Your task to perform on an android device: change alarm snooze length Image 0: 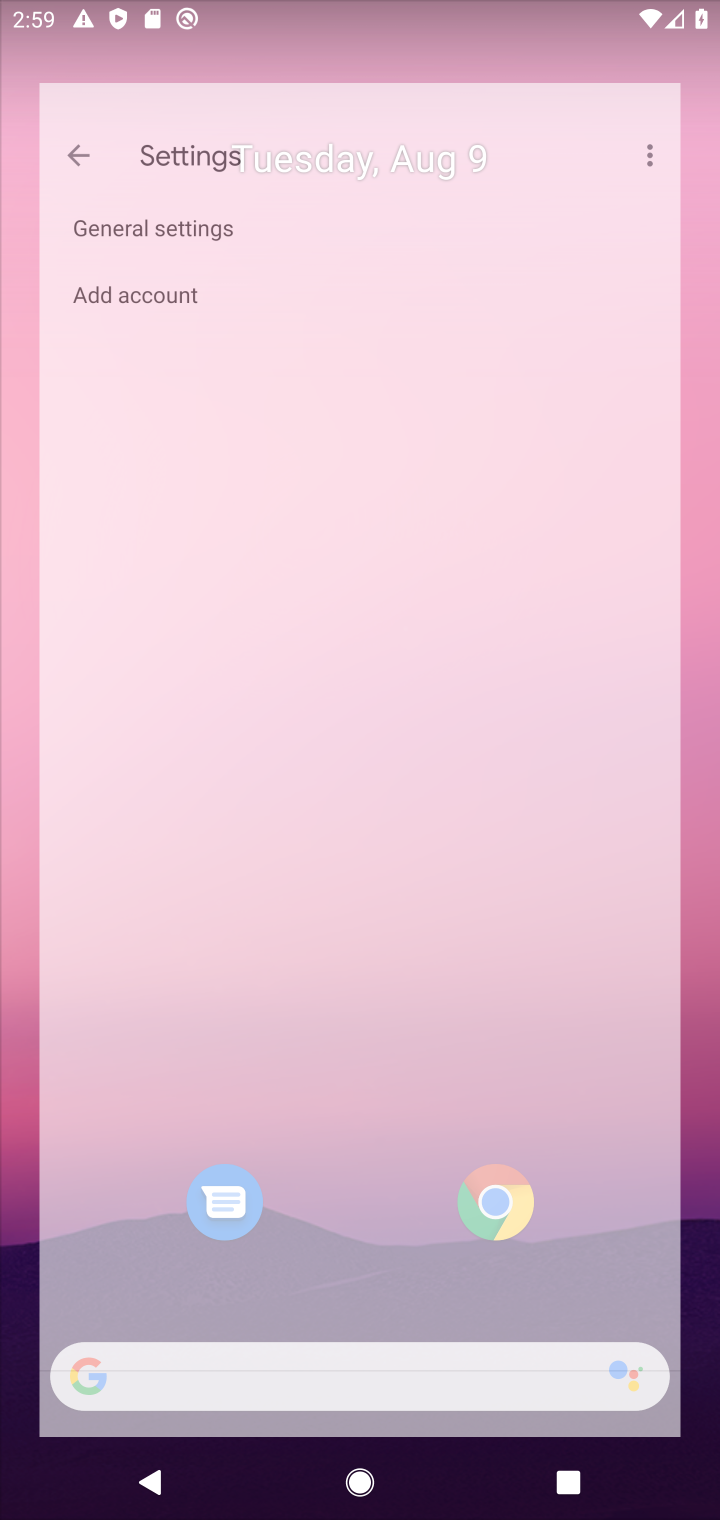
Step 0: press home button
Your task to perform on an android device: change alarm snooze length Image 1: 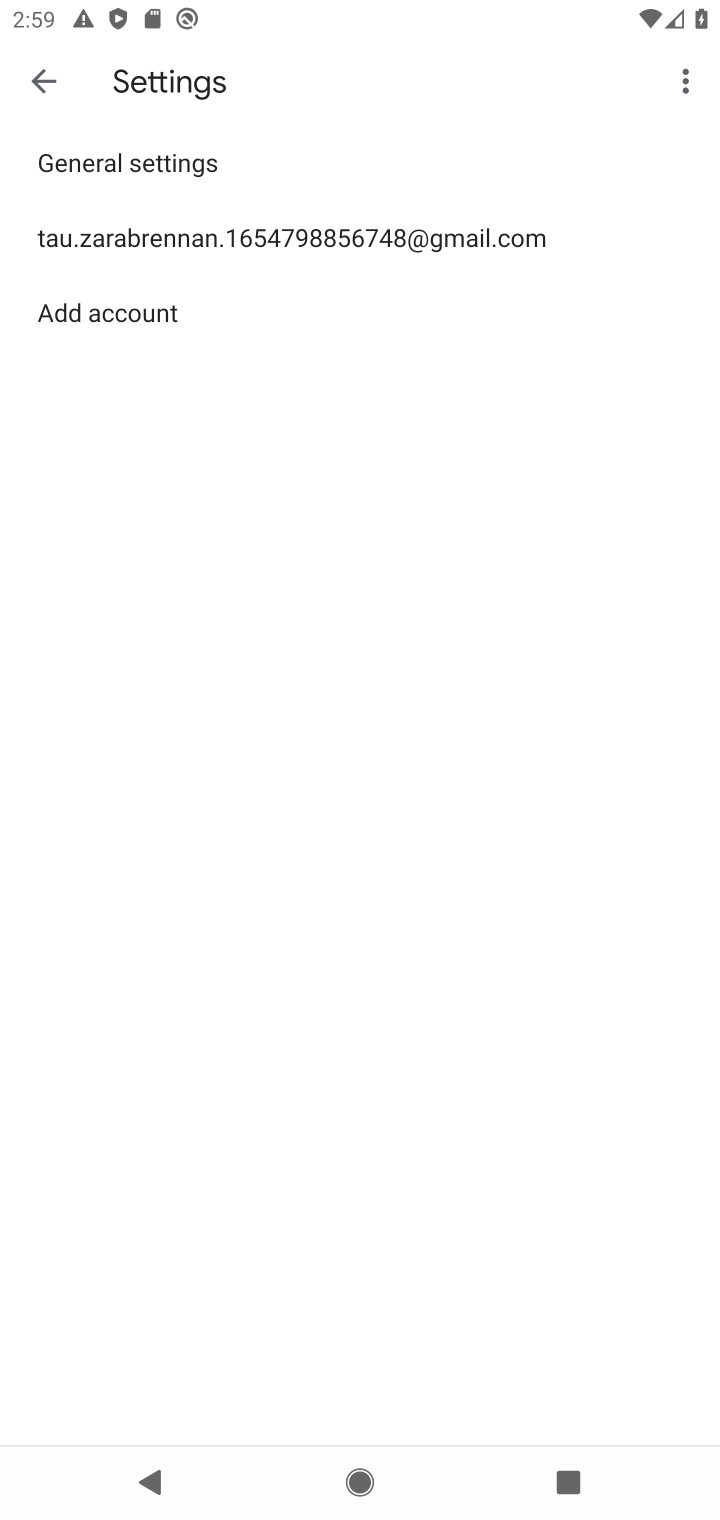
Step 1: press home button
Your task to perform on an android device: change alarm snooze length Image 2: 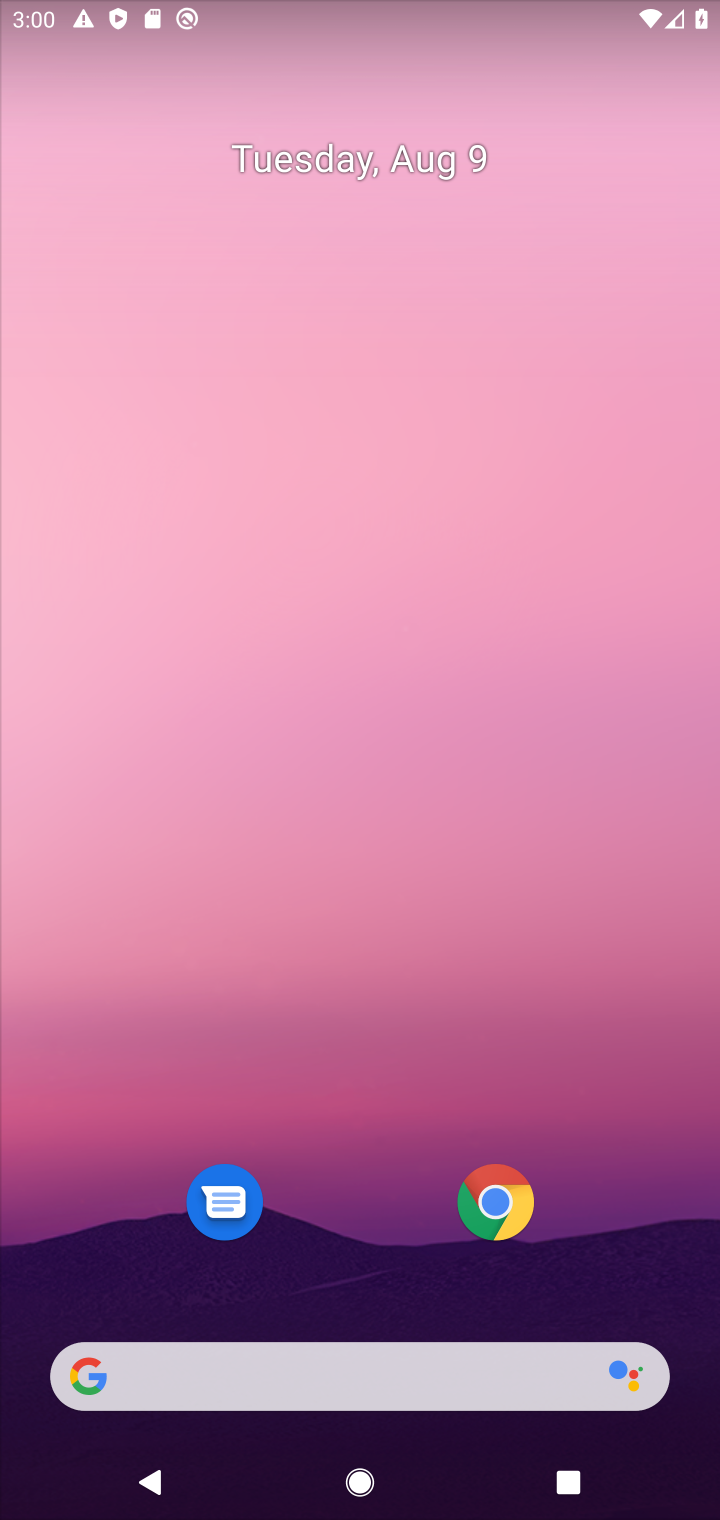
Step 2: drag from (338, 751) to (338, 578)
Your task to perform on an android device: change alarm snooze length Image 3: 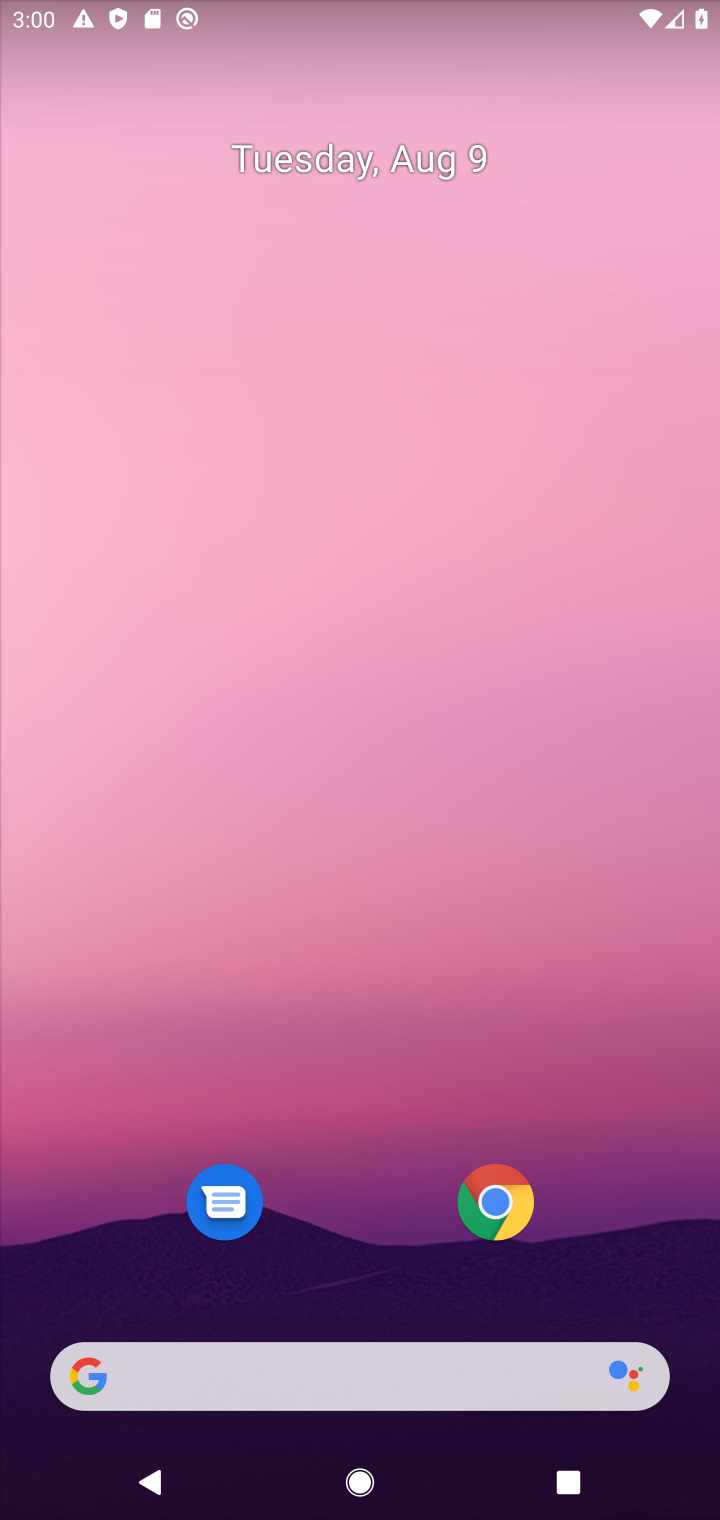
Step 3: drag from (635, 1155) to (324, 73)
Your task to perform on an android device: change alarm snooze length Image 4: 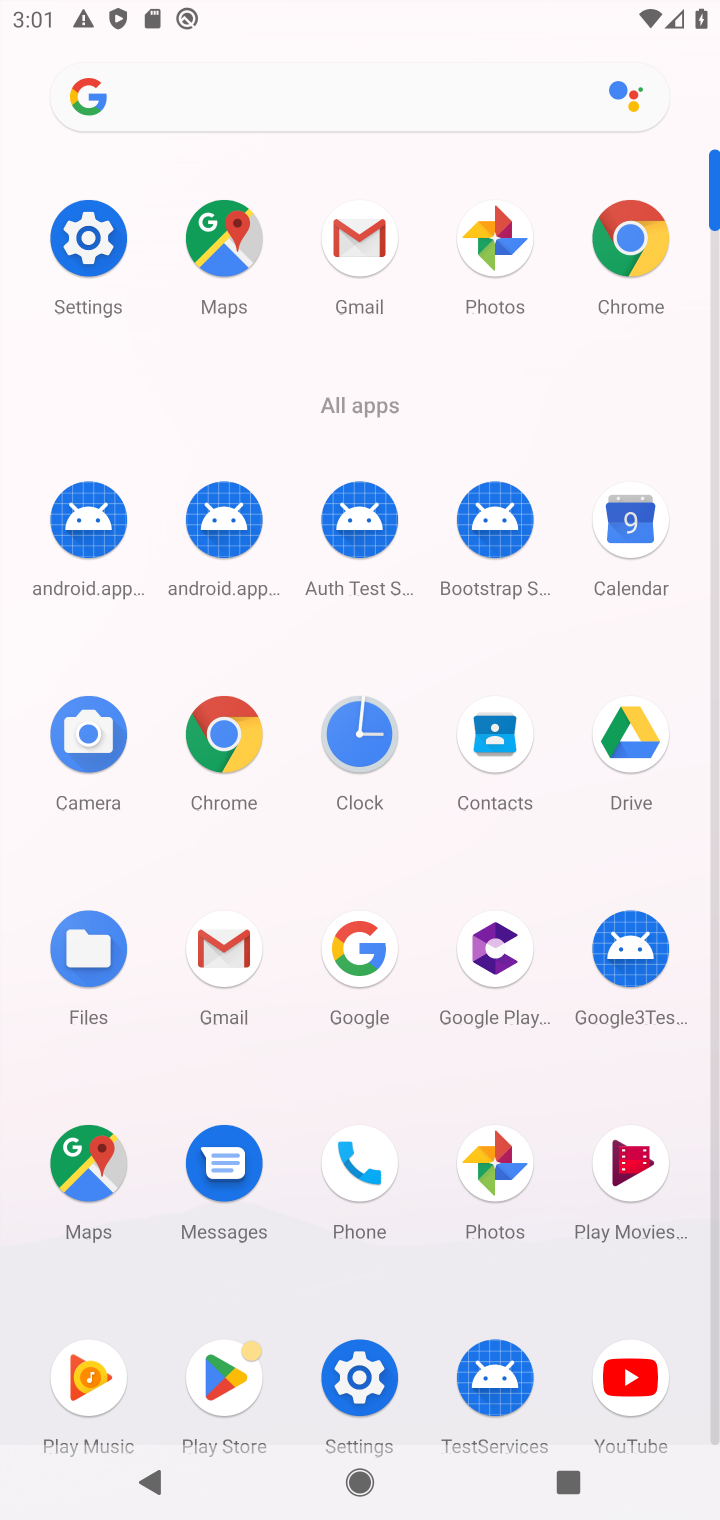
Step 4: click (352, 734)
Your task to perform on an android device: change alarm snooze length Image 5: 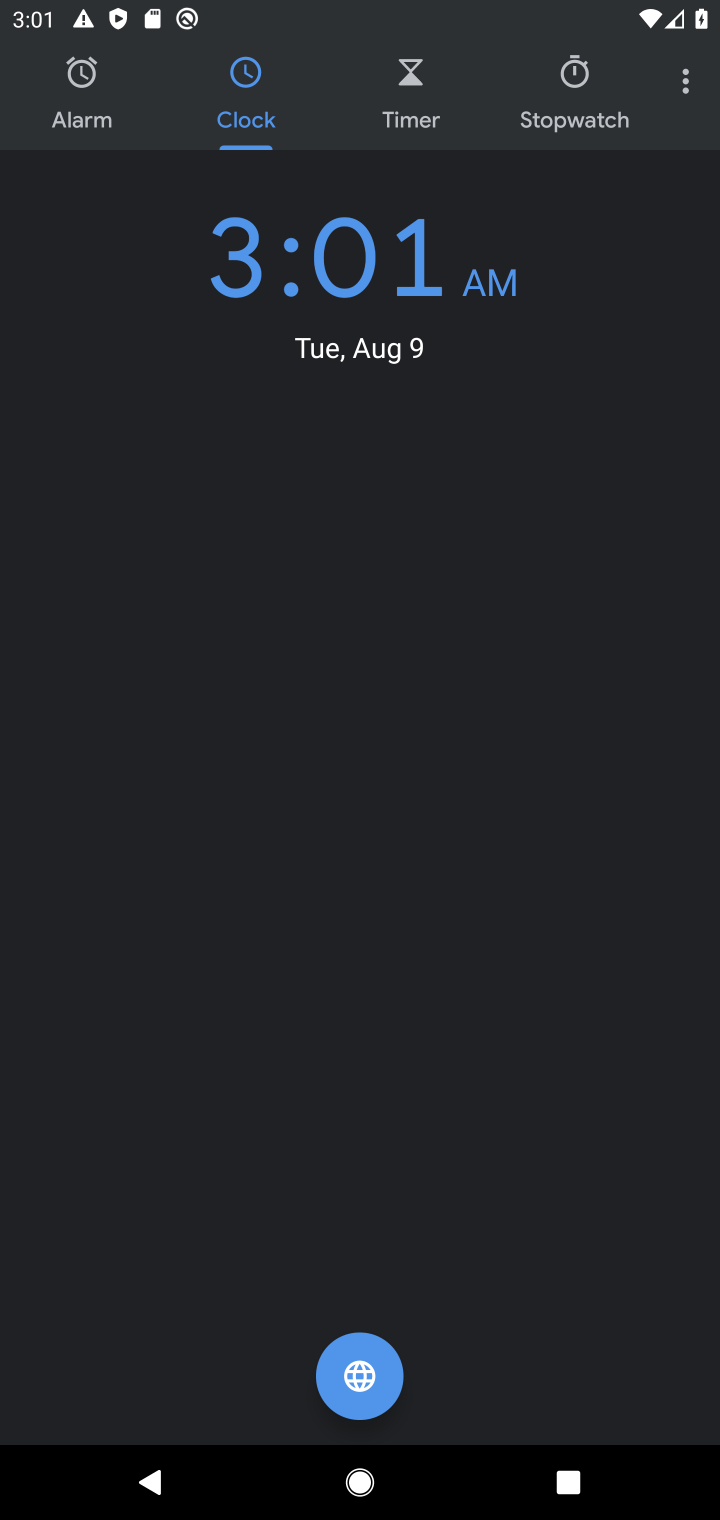
Step 5: click (680, 104)
Your task to perform on an android device: change alarm snooze length Image 6: 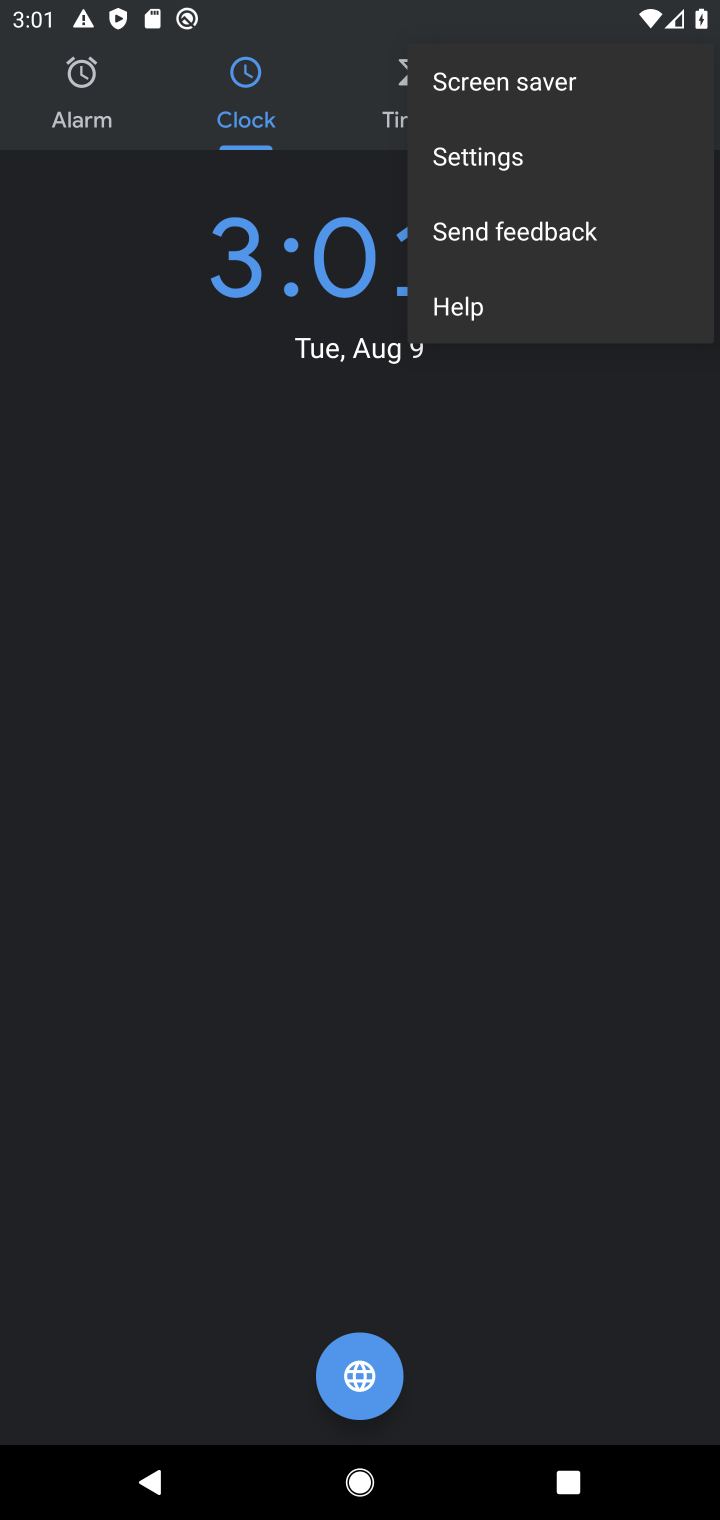
Step 6: click (464, 160)
Your task to perform on an android device: change alarm snooze length Image 7: 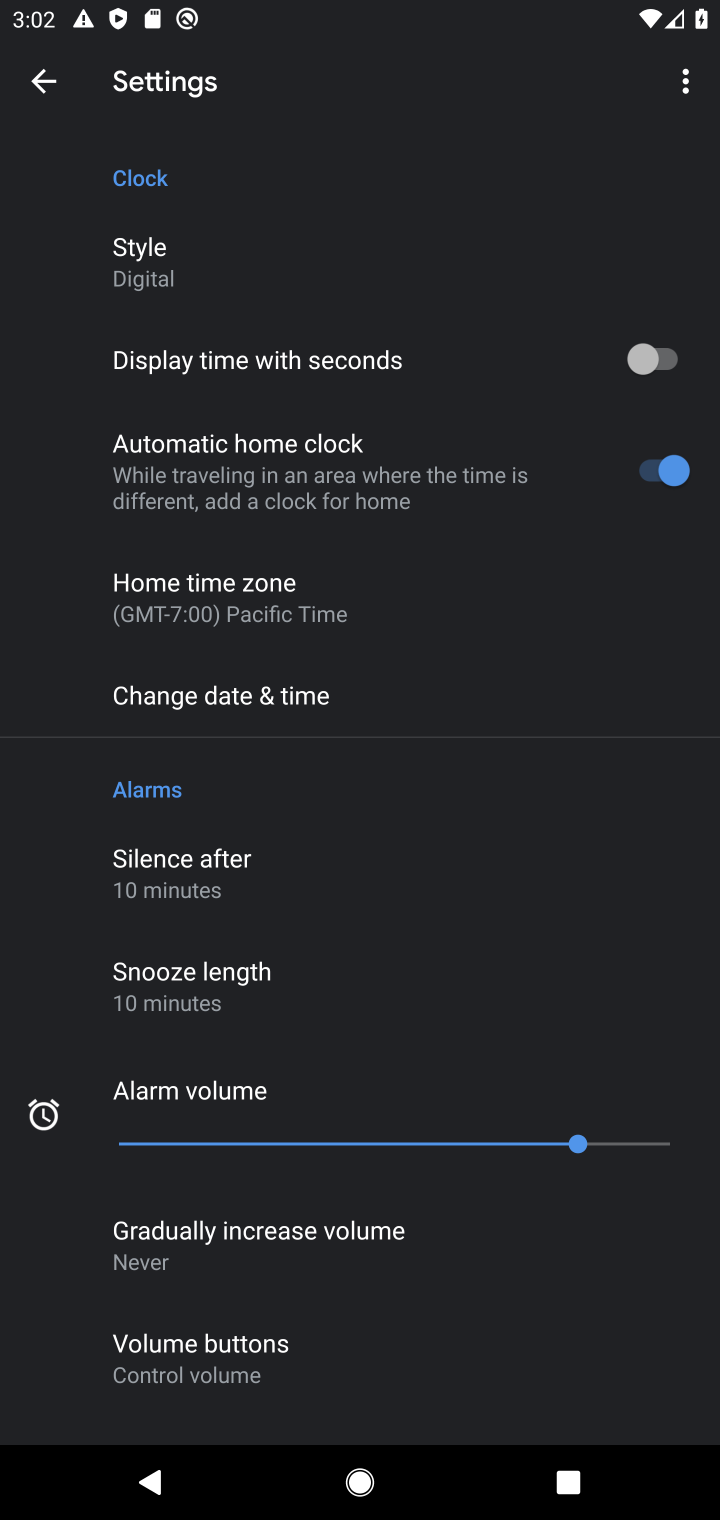
Step 7: drag from (270, 1282) to (246, 1134)
Your task to perform on an android device: change alarm snooze length Image 8: 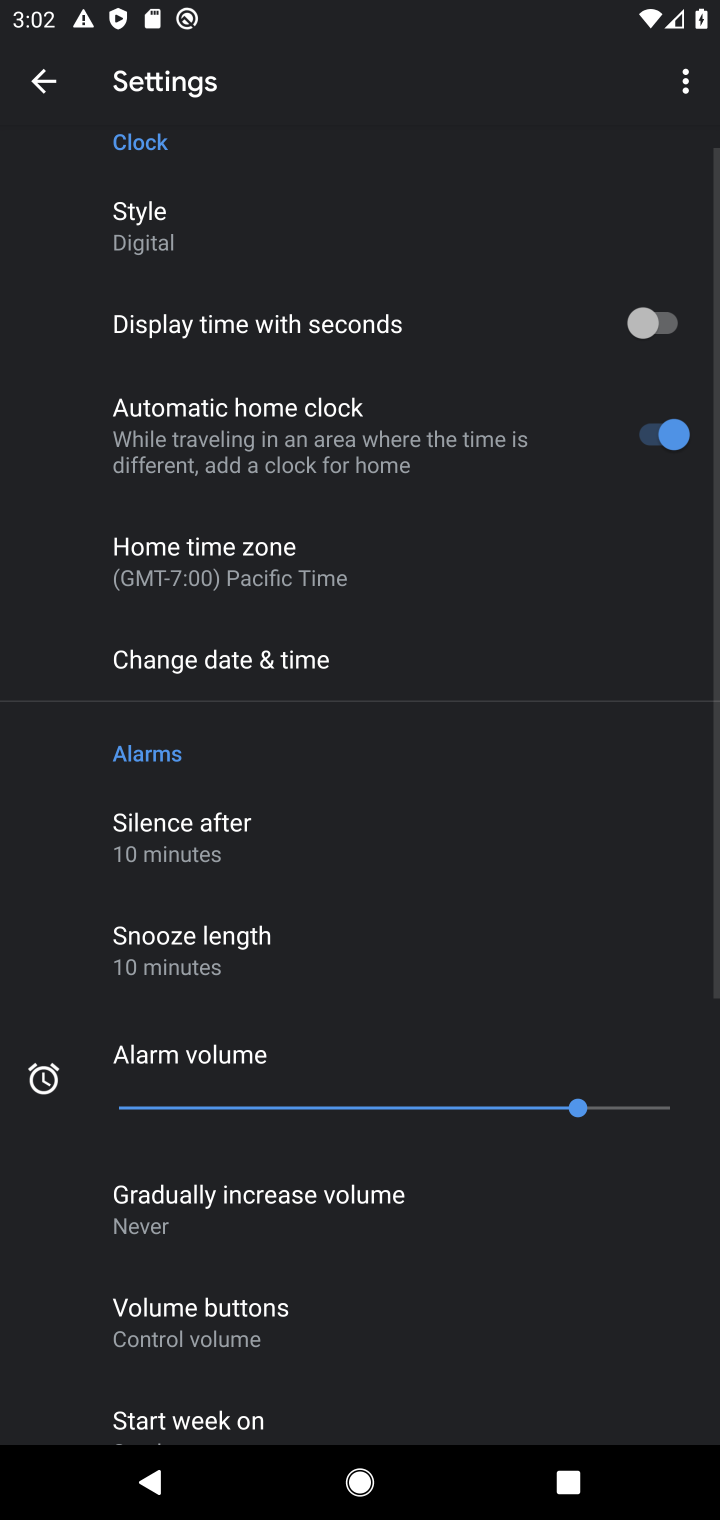
Step 8: click (256, 951)
Your task to perform on an android device: change alarm snooze length Image 9: 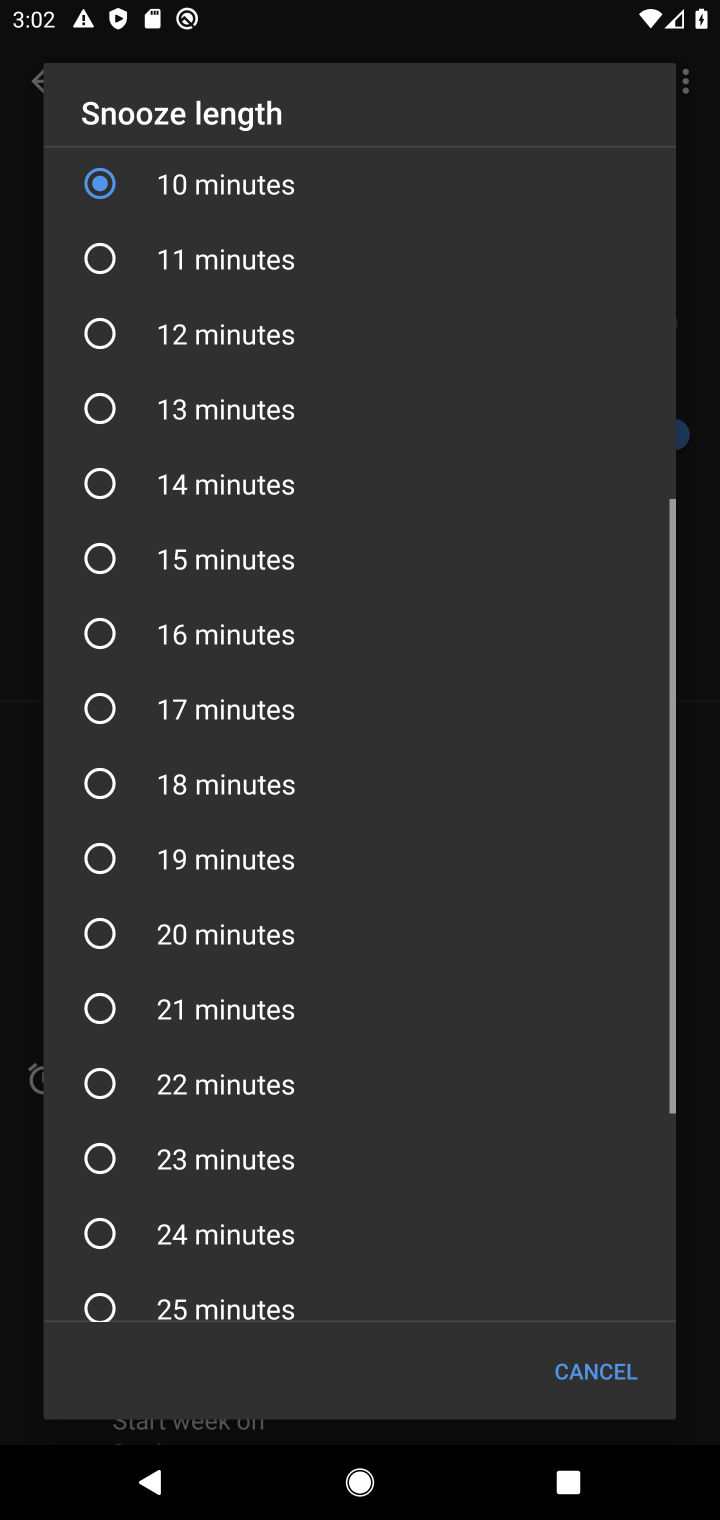
Step 9: click (256, 951)
Your task to perform on an android device: change alarm snooze length Image 10: 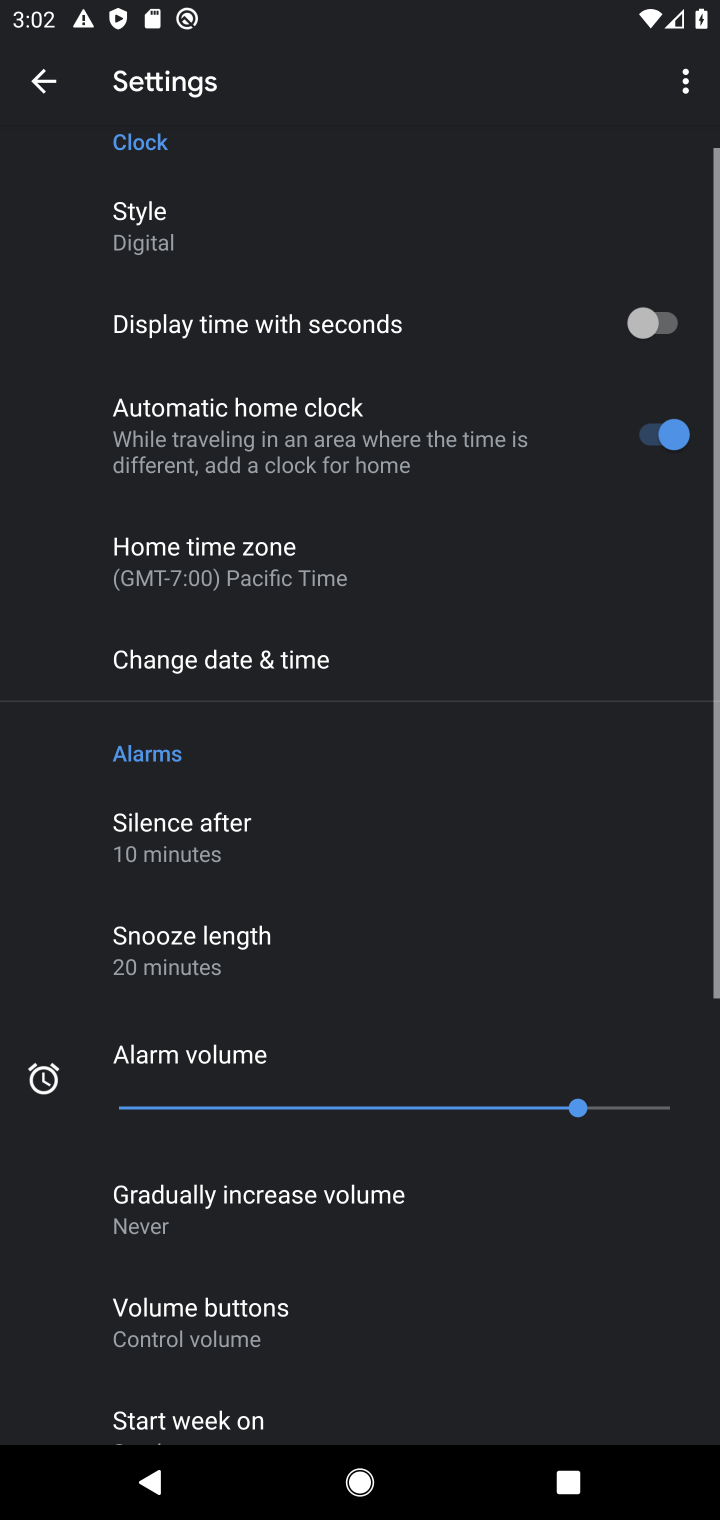
Step 10: task complete